Your task to perform on an android device: turn off smart reply in the gmail app Image 0: 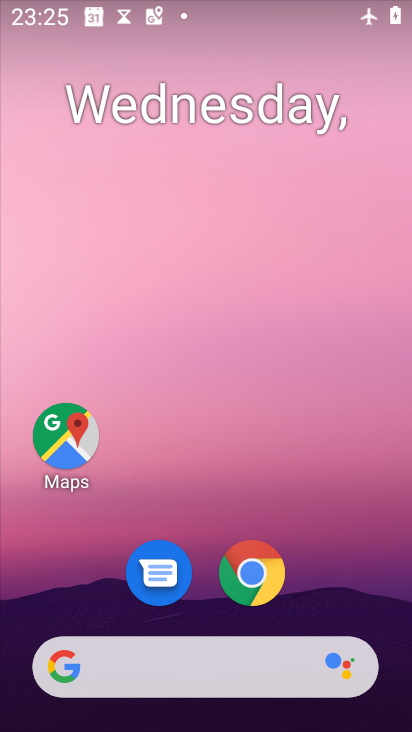
Step 0: drag from (326, 579) to (273, 242)
Your task to perform on an android device: turn off smart reply in the gmail app Image 1: 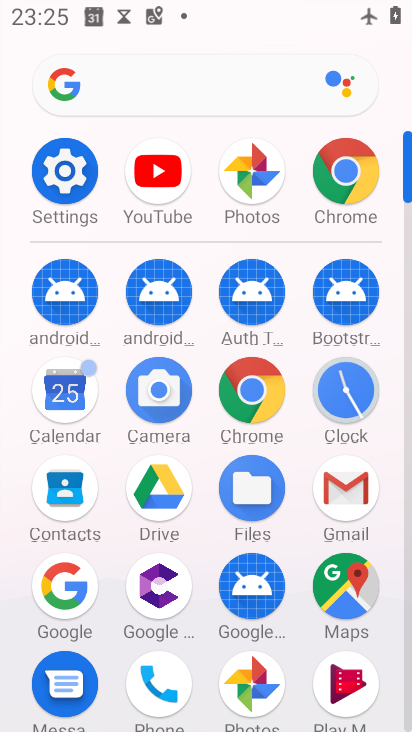
Step 1: click (330, 491)
Your task to perform on an android device: turn off smart reply in the gmail app Image 2: 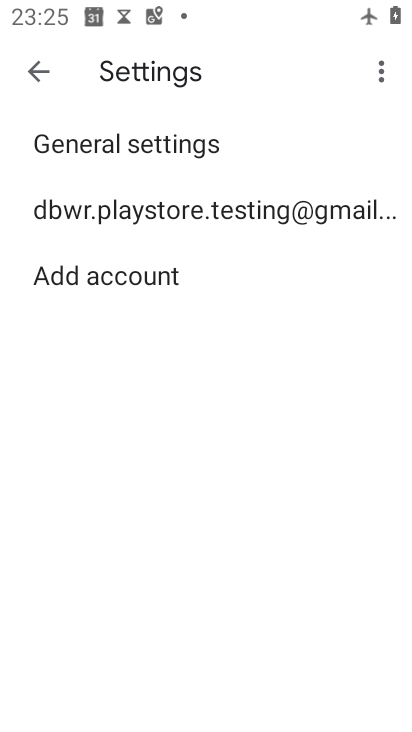
Step 2: click (196, 209)
Your task to perform on an android device: turn off smart reply in the gmail app Image 3: 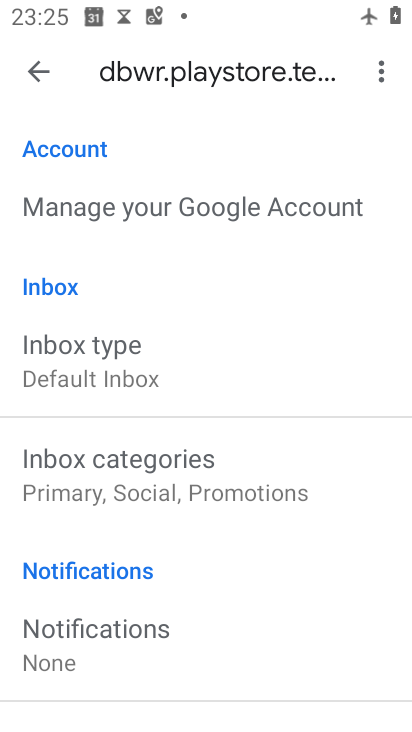
Step 3: task complete